Your task to perform on an android device: turn on wifi Image 0: 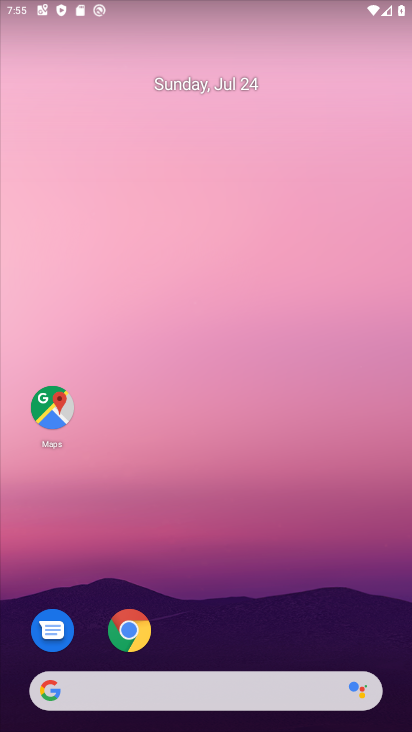
Step 0: drag from (223, 622) to (202, 185)
Your task to perform on an android device: turn on wifi Image 1: 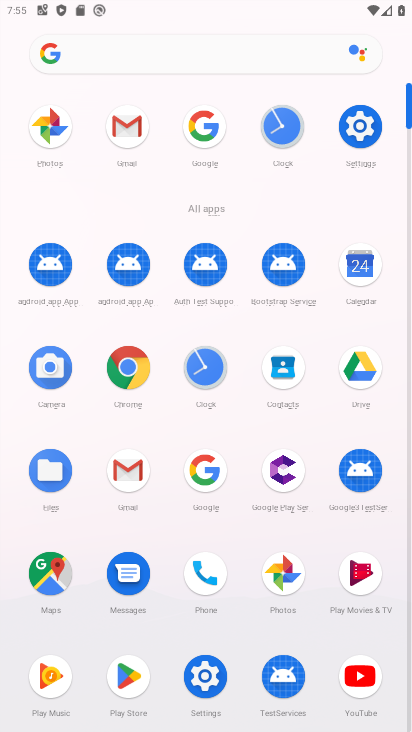
Step 1: click (346, 135)
Your task to perform on an android device: turn on wifi Image 2: 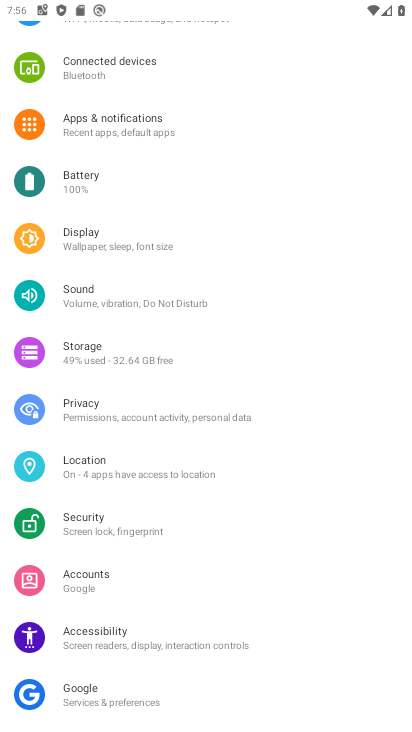
Step 2: drag from (224, 162) to (226, 715)
Your task to perform on an android device: turn on wifi Image 3: 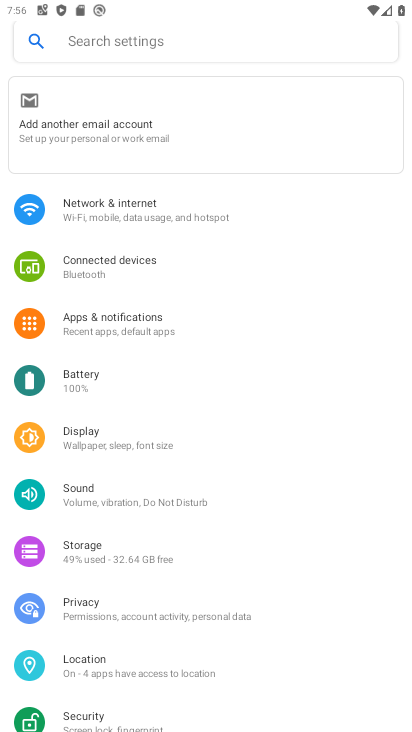
Step 3: click (156, 216)
Your task to perform on an android device: turn on wifi Image 4: 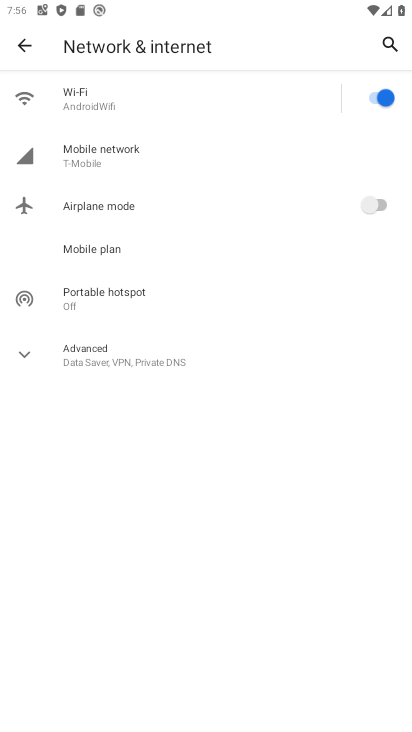
Step 4: task complete